Your task to perform on an android device: show emergency info Image 0: 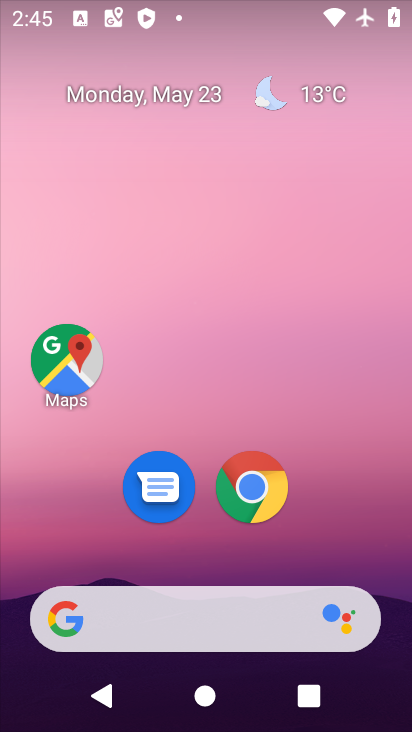
Step 0: drag from (391, 605) to (355, 153)
Your task to perform on an android device: show emergency info Image 1: 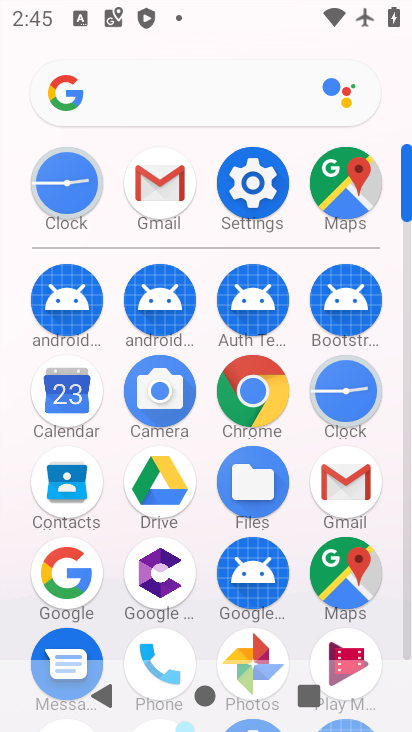
Step 1: click (406, 633)
Your task to perform on an android device: show emergency info Image 2: 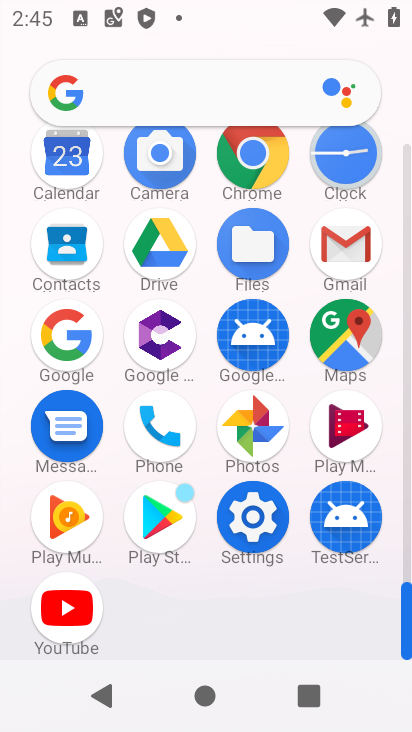
Step 2: click (252, 511)
Your task to perform on an android device: show emergency info Image 3: 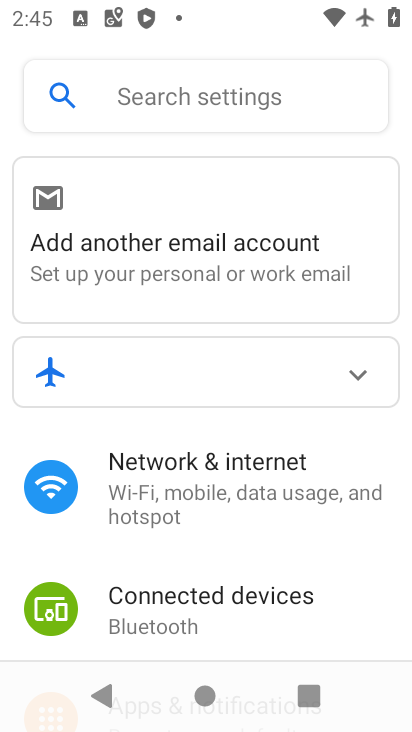
Step 3: drag from (373, 628) to (335, 7)
Your task to perform on an android device: show emergency info Image 4: 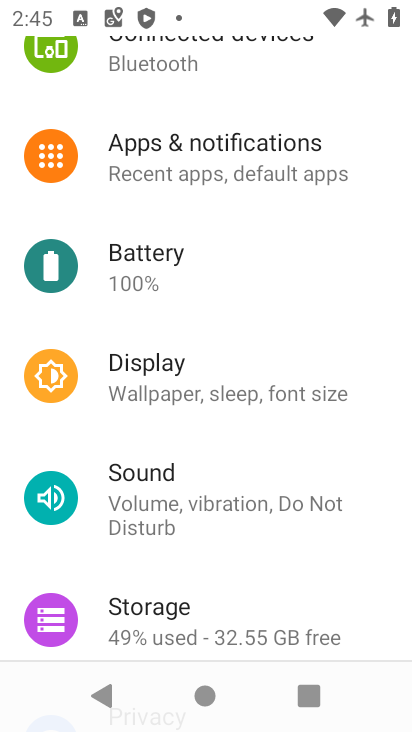
Step 4: drag from (314, 635) to (234, 47)
Your task to perform on an android device: show emergency info Image 5: 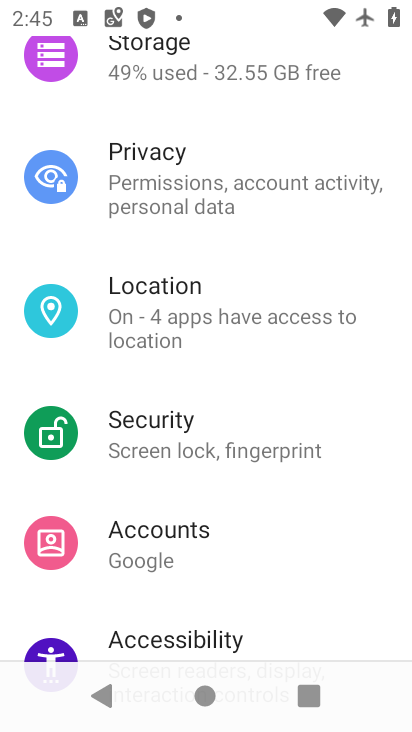
Step 5: drag from (272, 626) to (246, 187)
Your task to perform on an android device: show emergency info Image 6: 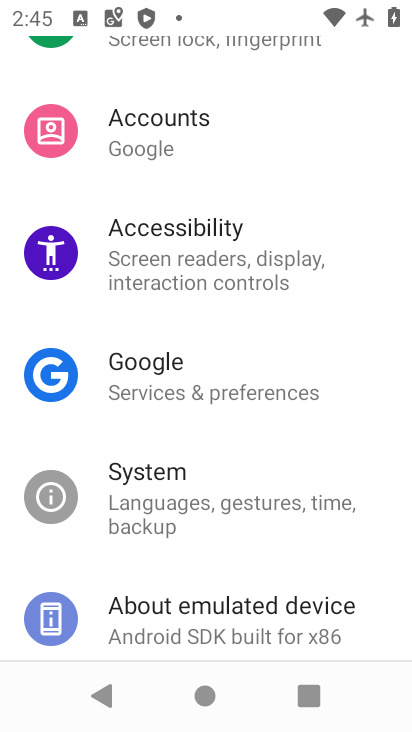
Step 6: drag from (246, 562) to (242, 275)
Your task to perform on an android device: show emergency info Image 7: 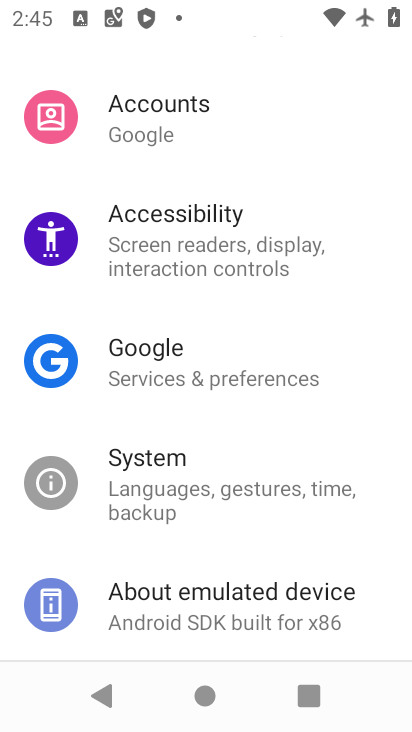
Step 7: click (164, 589)
Your task to perform on an android device: show emergency info Image 8: 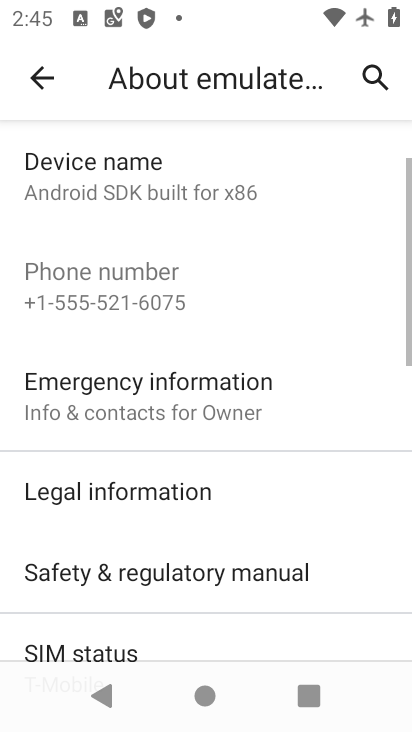
Step 8: click (118, 391)
Your task to perform on an android device: show emergency info Image 9: 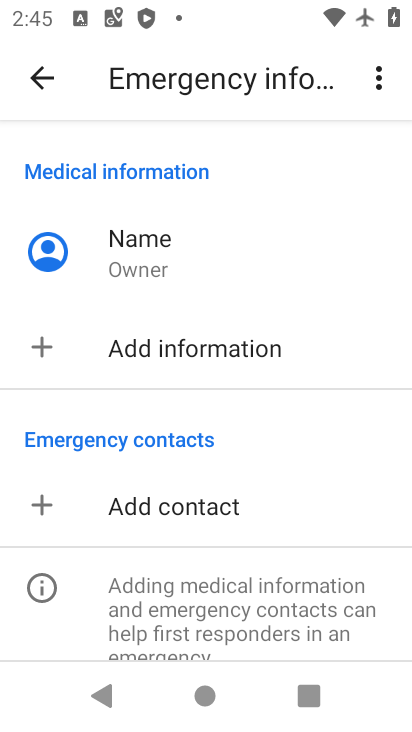
Step 9: task complete